Your task to perform on an android device: set the timer Image 0: 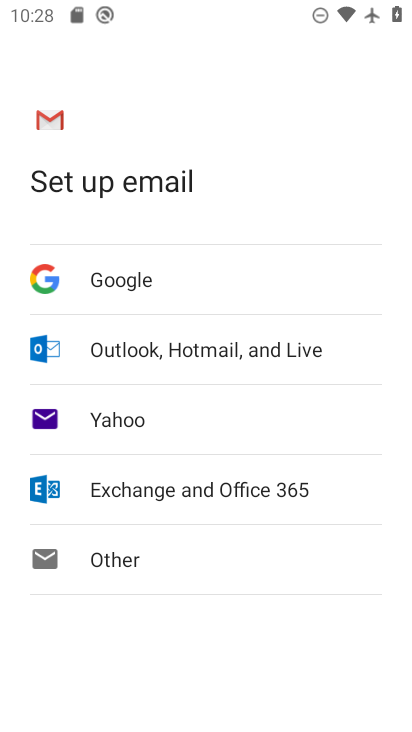
Step 0: press home button
Your task to perform on an android device: set the timer Image 1: 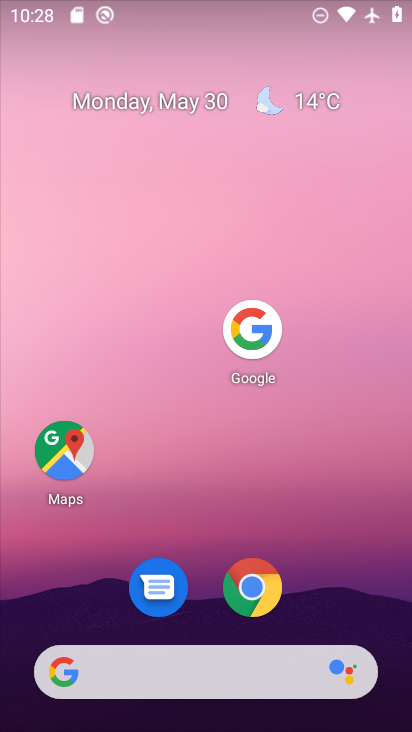
Step 1: drag from (273, 631) to (359, 54)
Your task to perform on an android device: set the timer Image 2: 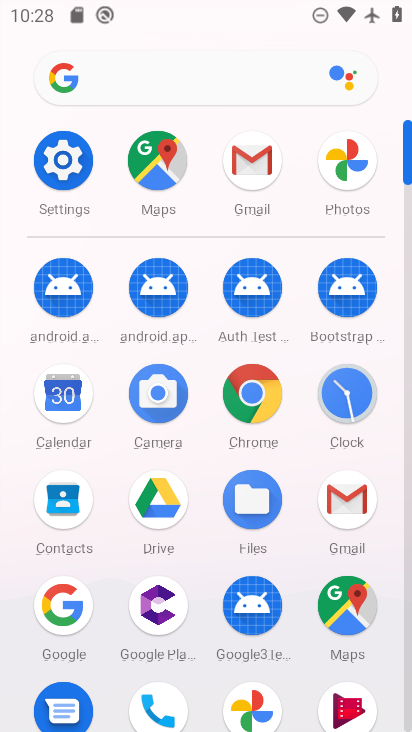
Step 2: click (327, 380)
Your task to perform on an android device: set the timer Image 3: 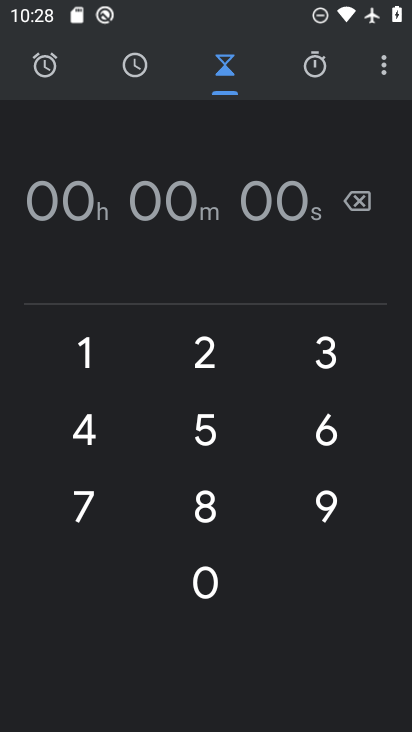
Step 3: click (93, 351)
Your task to perform on an android device: set the timer Image 4: 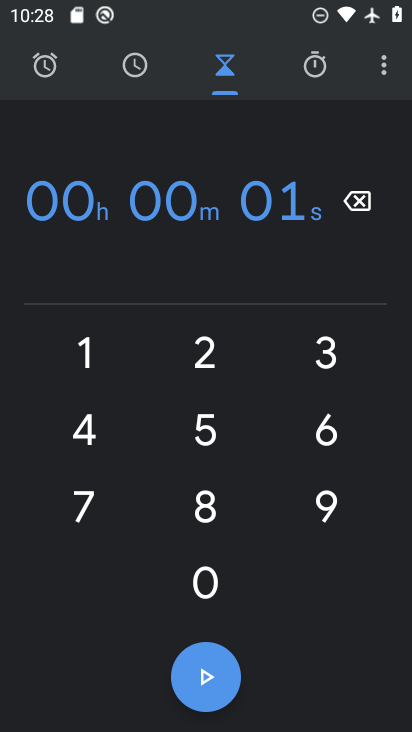
Step 4: click (341, 357)
Your task to perform on an android device: set the timer Image 5: 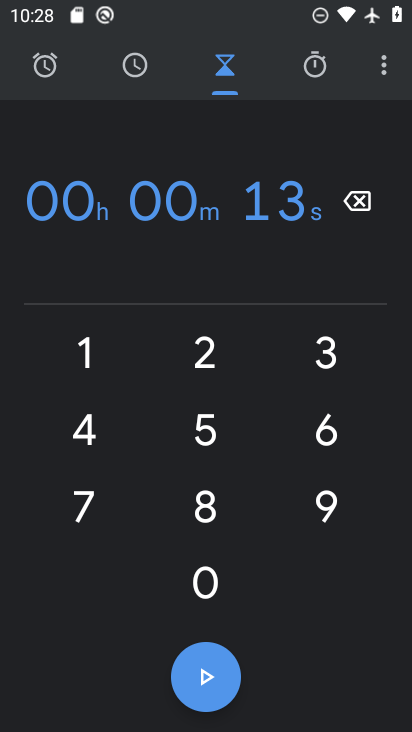
Step 5: click (186, 679)
Your task to perform on an android device: set the timer Image 6: 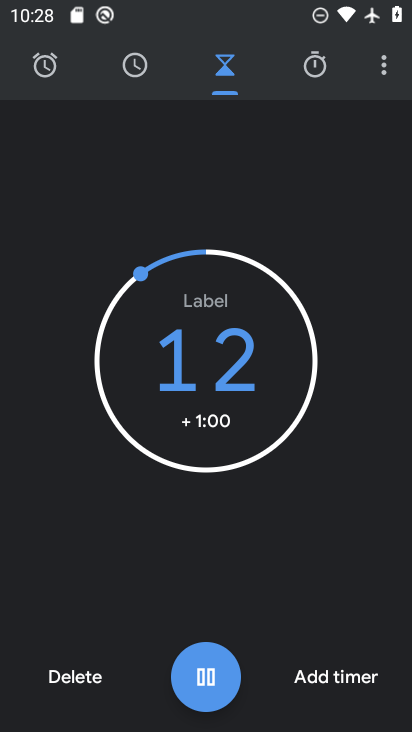
Step 6: click (200, 679)
Your task to perform on an android device: set the timer Image 7: 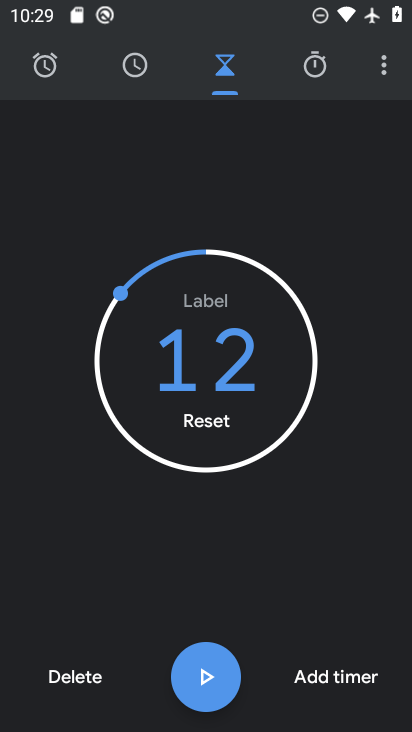
Step 7: task complete